Your task to perform on an android device: Open Google Chrome Image 0: 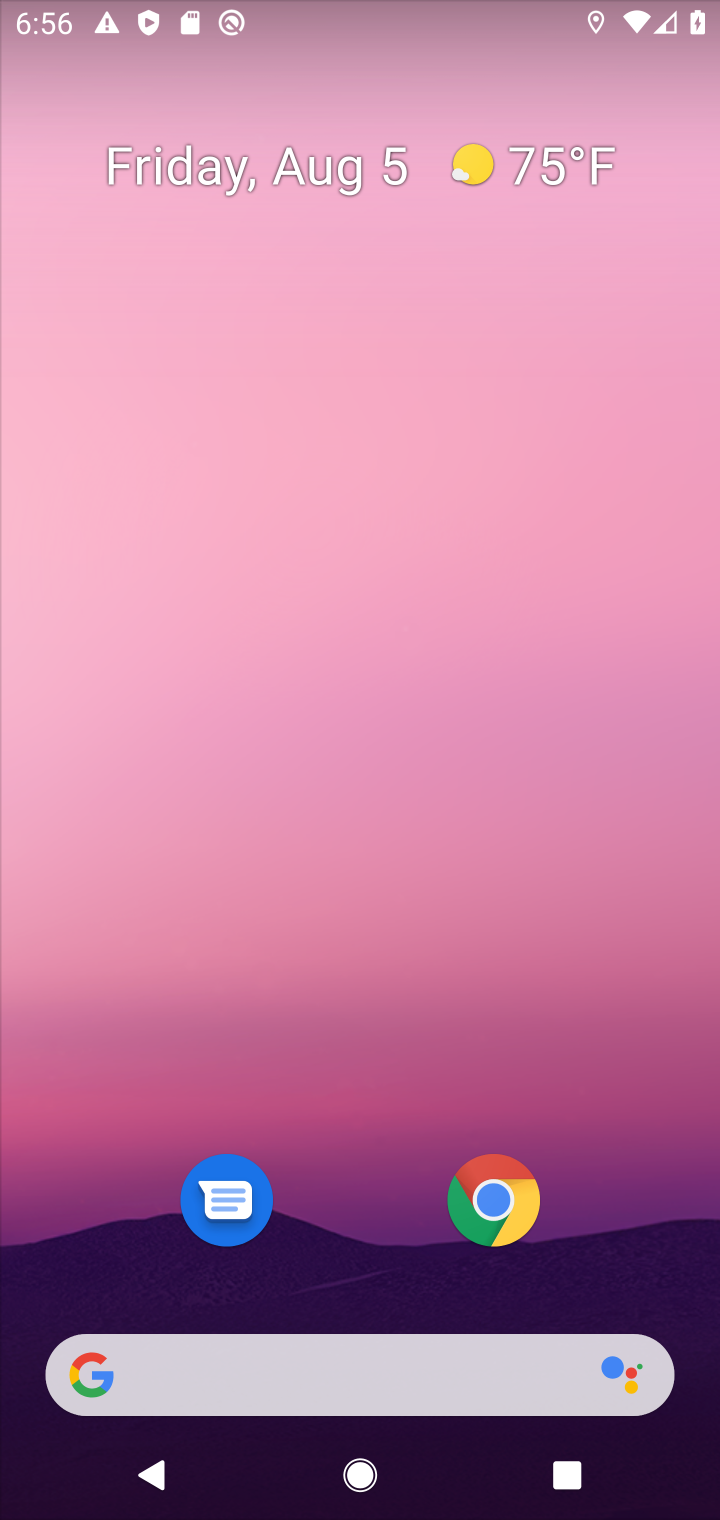
Step 0: press home button
Your task to perform on an android device: Open Google Chrome Image 1: 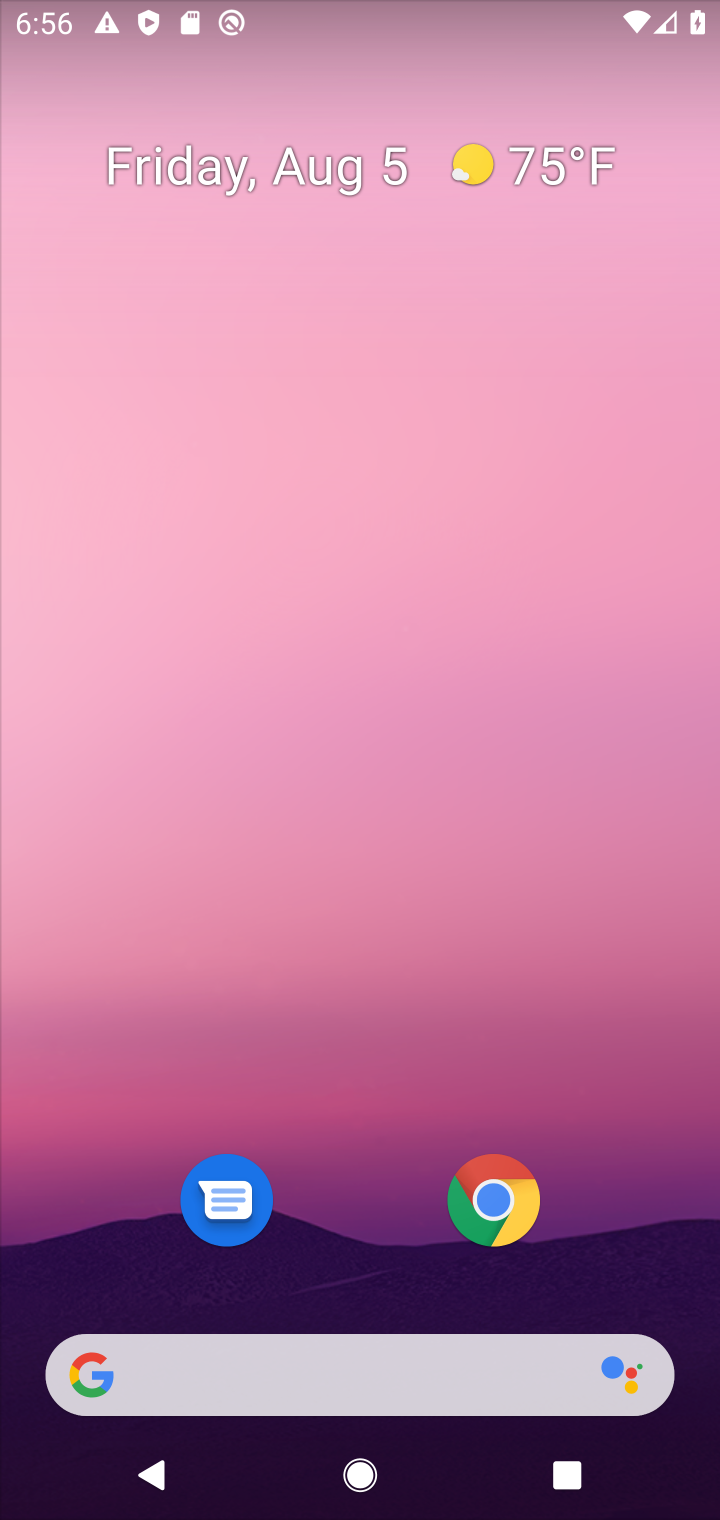
Step 1: click (487, 1227)
Your task to perform on an android device: Open Google Chrome Image 2: 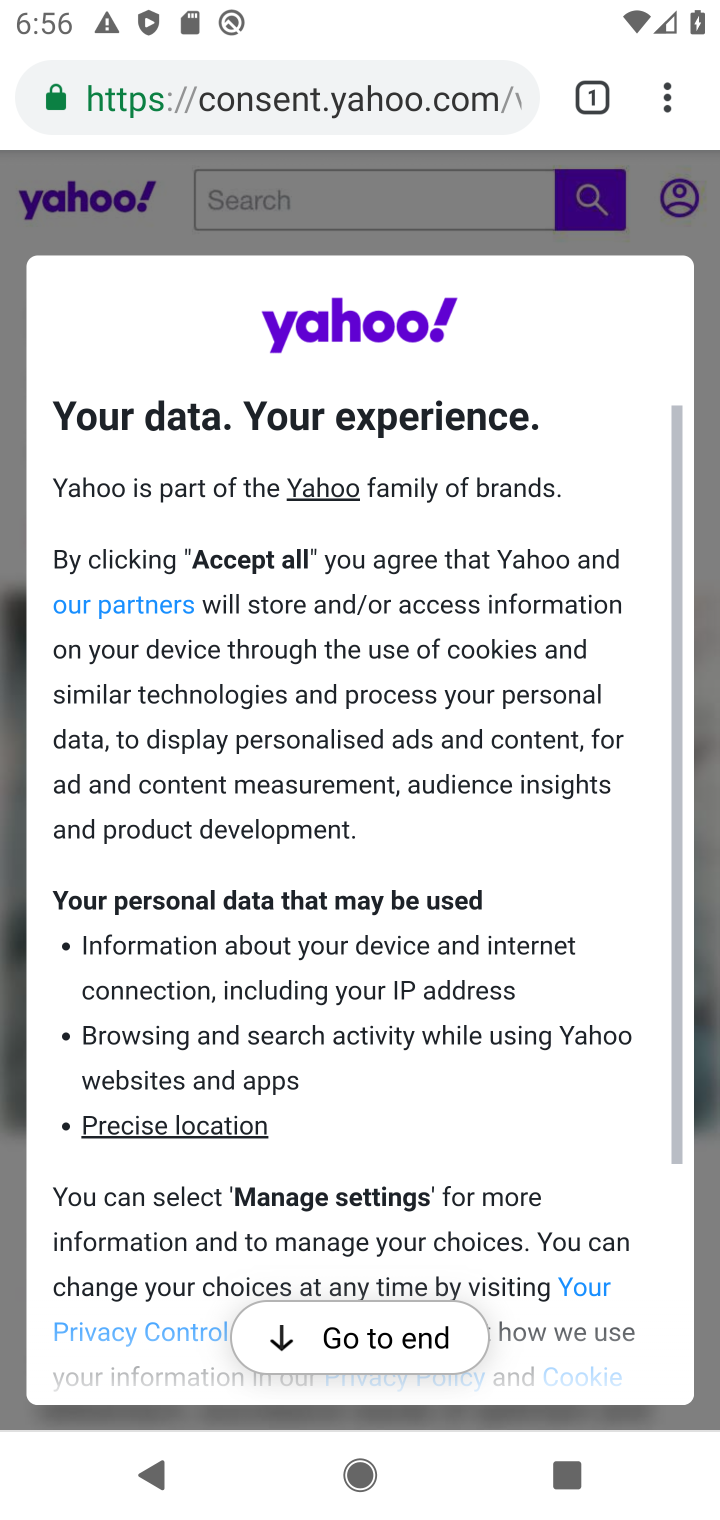
Step 2: task complete